Your task to perform on an android device: remove spam from my inbox in the gmail app Image 0: 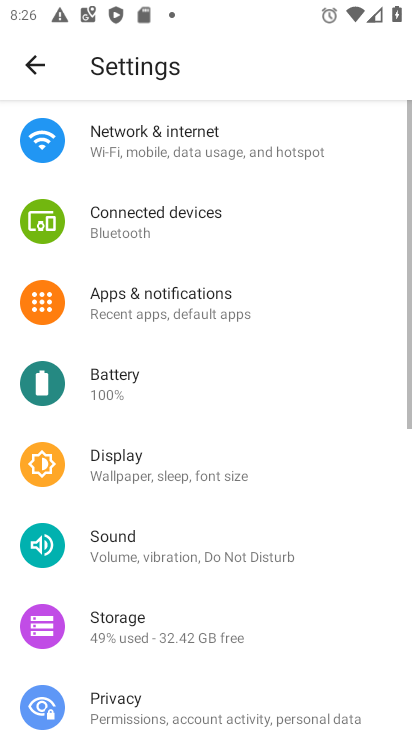
Step 0: press home button
Your task to perform on an android device: remove spam from my inbox in the gmail app Image 1: 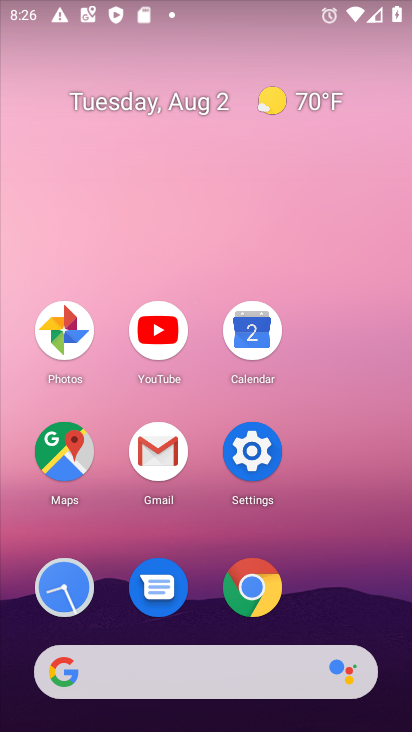
Step 1: click (156, 453)
Your task to perform on an android device: remove spam from my inbox in the gmail app Image 2: 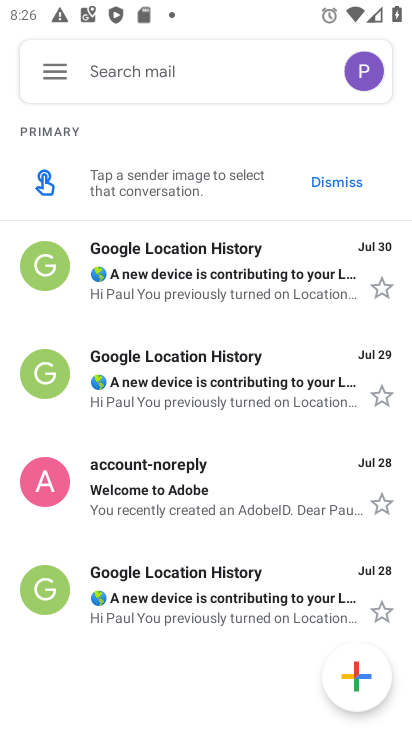
Step 2: click (50, 63)
Your task to perform on an android device: remove spam from my inbox in the gmail app Image 3: 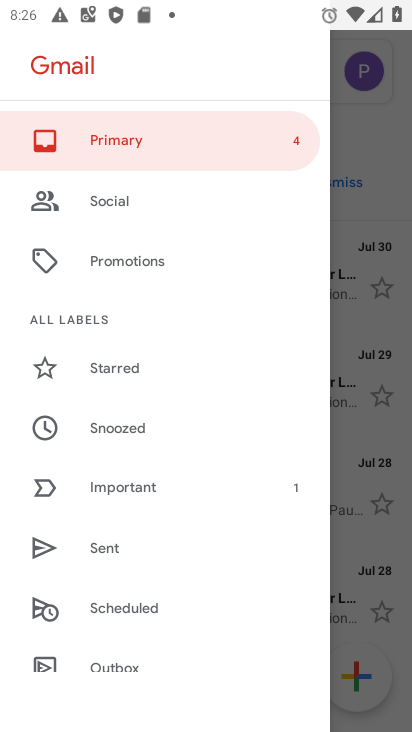
Step 3: drag from (209, 636) to (218, 206)
Your task to perform on an android device: remove spam from my inbox in the gmail app Image 4: 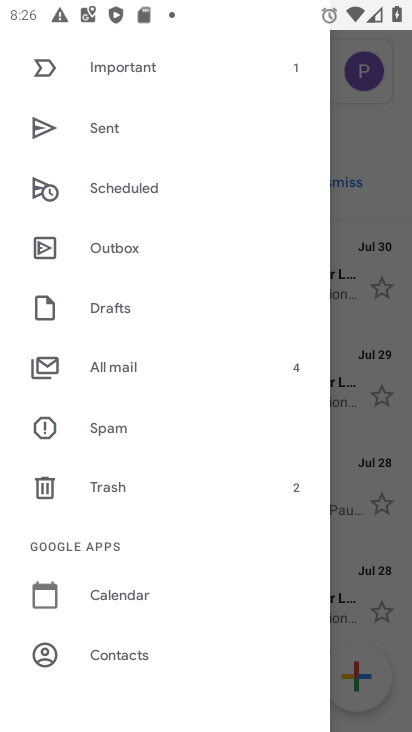
Step 4: click (108, 431)
Your task to perform on an android device: remove spam from my inbox in the gmail app Image 5: 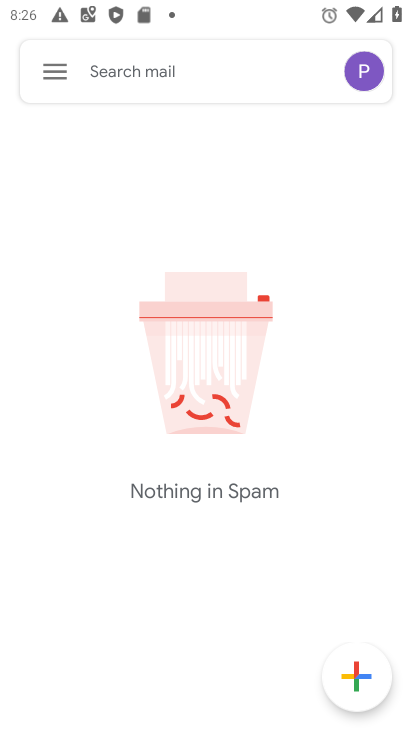
Step 5: task complete